Your task to perform on an android device: Open Google Chrome and click the shortcut for Amazon.com Image 0: 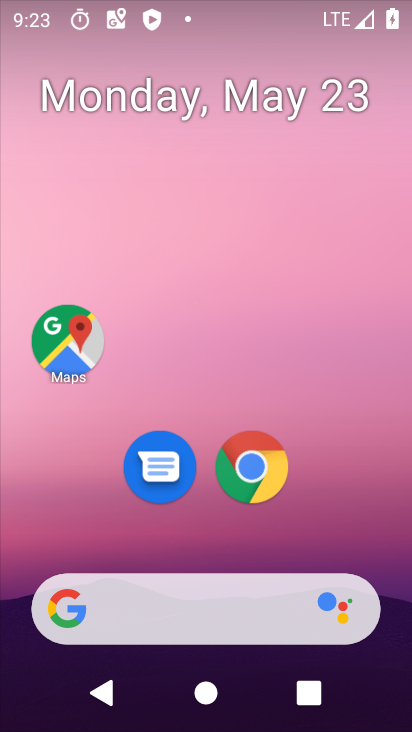
Step 0: click (260, 470)
Your task to perform on an android device: Open Google Chrome and click the shortcut for Amazon.com Image 1: 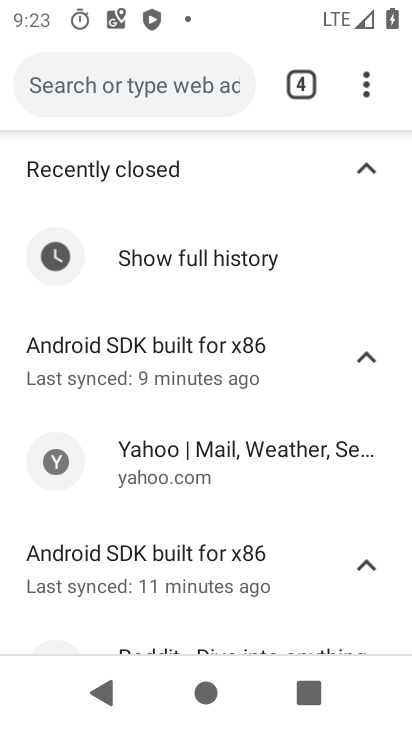
Step 1: click (299, 83)
Your task to perform on an android device: Open Google Chrome and click the shortcut for Amazon.com Image 2: 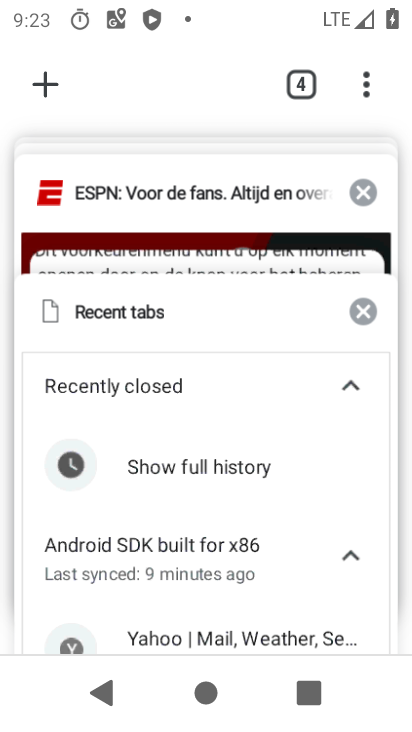
Step 2: click (28, 80)
Your task to perform on an android device: Open Google Chrome and click the shortcut for Amazon.com Image 3: 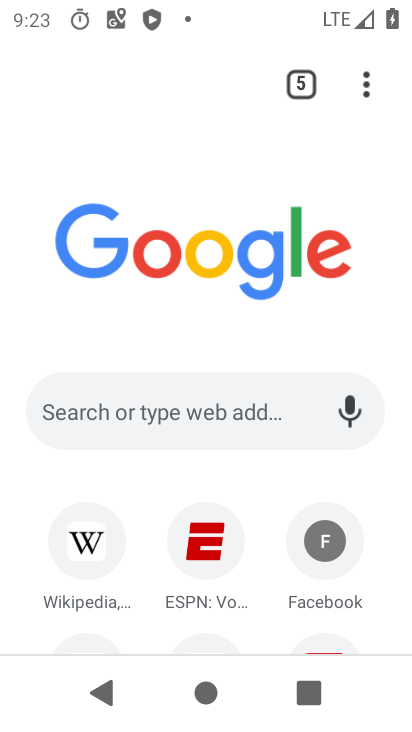
Step 3: drag from (258, 575) to (243, 230)
Your task to perform on an android device: Open Google Chrome and click the shortcut for Amazon.com Image 4: 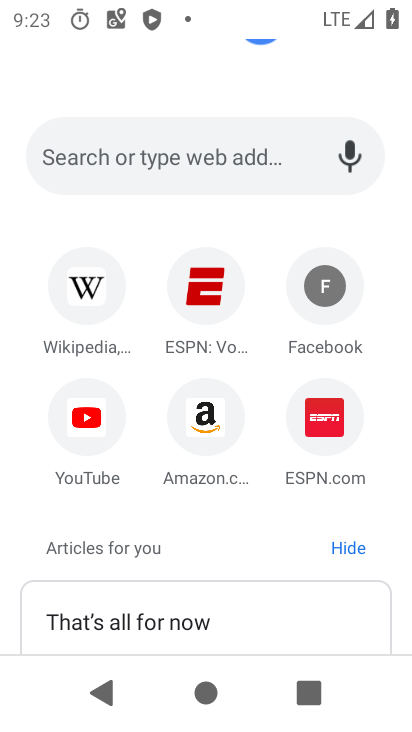
Step 4: click (218, 413)
Your task to perform on an android device: Open Google Chrome and click the shortcut for Amazon.com Image 5: 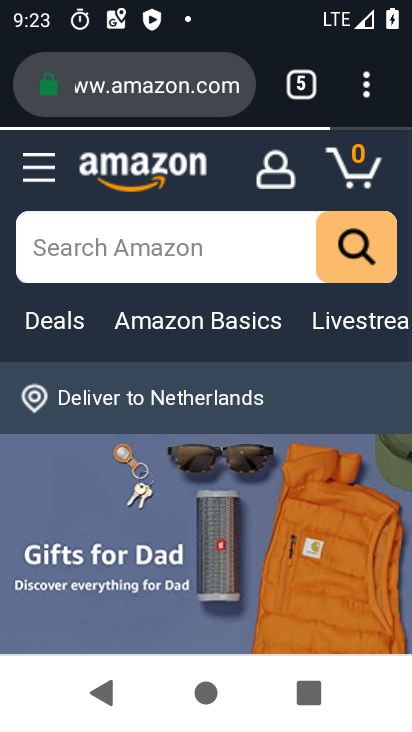
Step 5: task complete